Your task to perform on an android device: set the stopwatch Image 0: 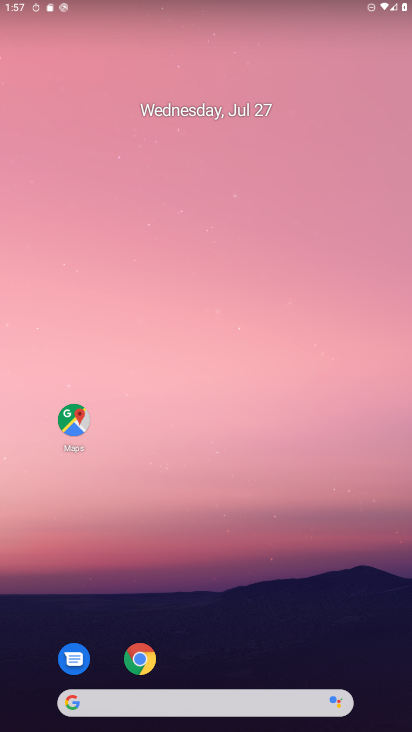
Step 0: drag from (291, 589) to (264, 131)
Your task to perform on an android device: set the stopwatch Image 1: 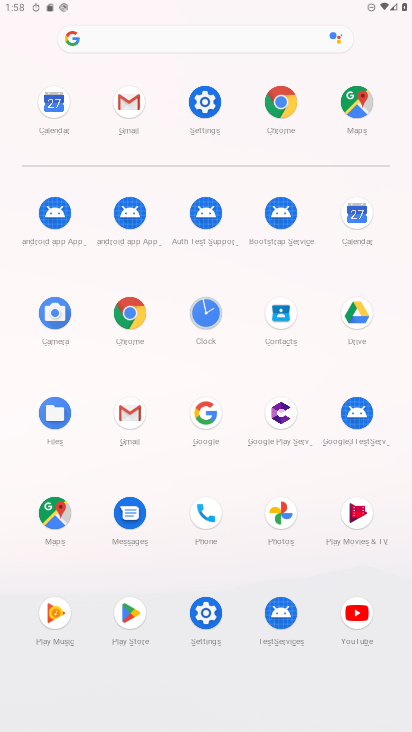
Step 1: click (203, 309)
Your task to perform on an android device: set the stopwatch Image 2: 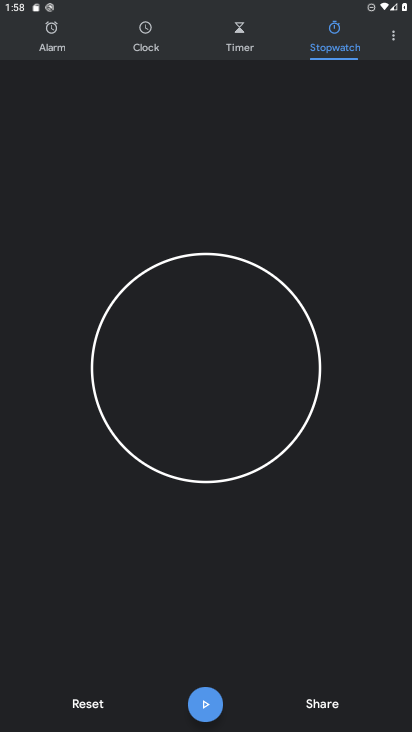
Step 2: task complete